Your task to perform on an android device: Open Reddit.com Image 0: 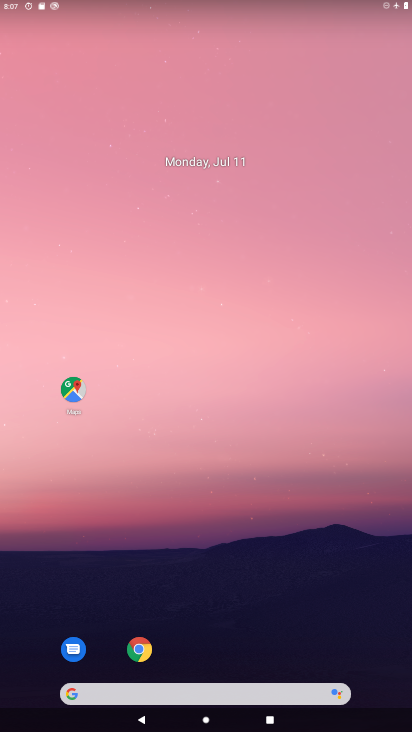
Step 0: click (138, 650)
Your task to perform on an android device: Open Reddit.com Image 1: 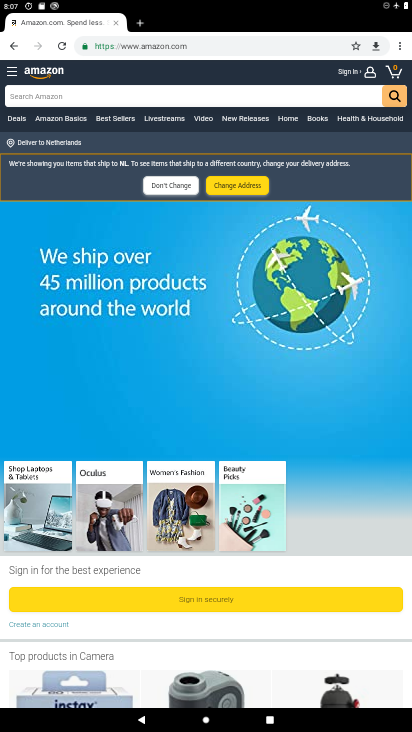
Step 1: click (220, 36)
Your task to perform on an android device: Open Reddit.com Image 2: 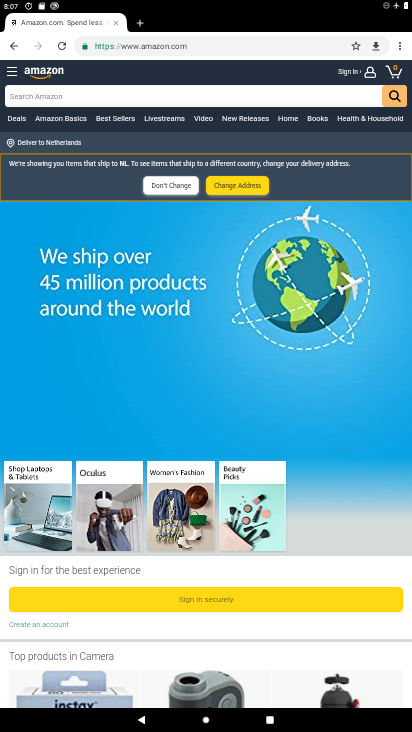
Step 2: click (245, 49)
Your task to perform on an android device: Open Reddit.com Image 3: 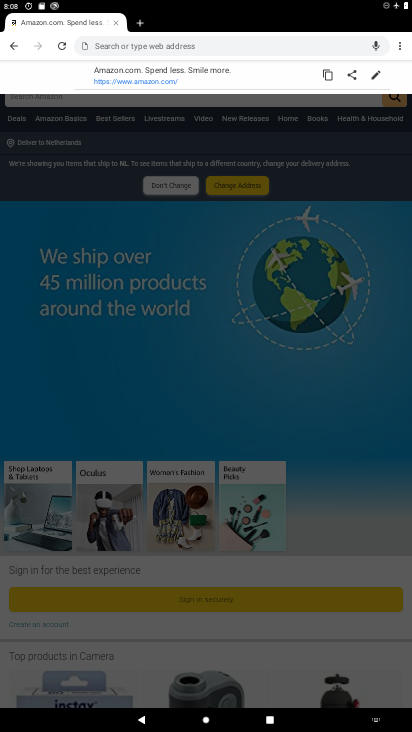
Step 3: type "Reddit.com"
Your task to perform on an android device: Open Reddit.com Image 4: 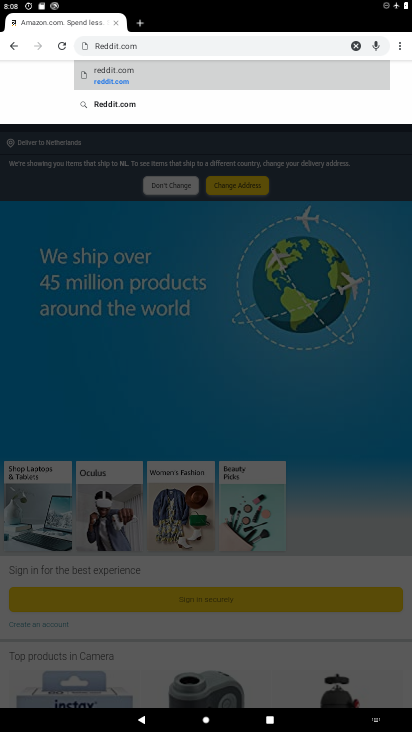
Step 4: click (125, 102)
Your task to perform on an android device: Open Reddit.com Image 5: 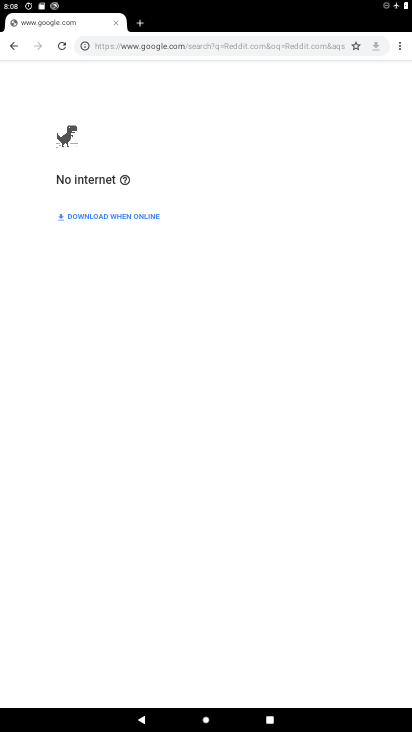
Step 5: task complete